Your task to perform on an android device: What is the recent news? Image 0: 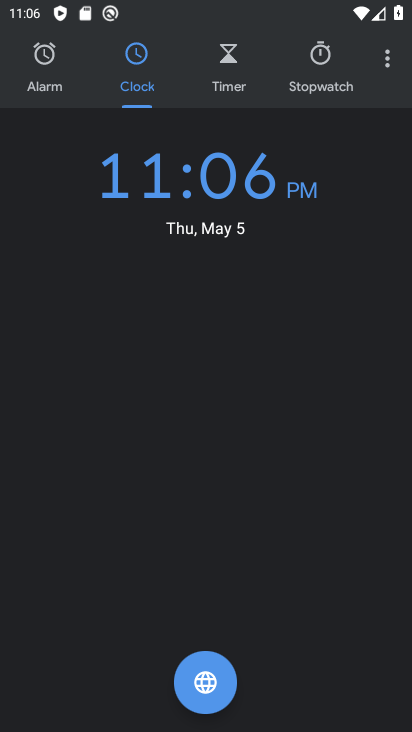
Step 0: press home button
Your task to perform on an android device: What is the recent news? Image 1: 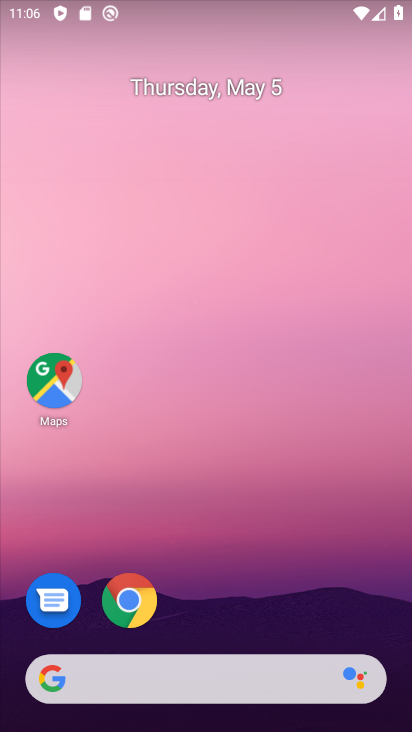
Step 1: drag from (406, 656) to (336, 108)
Your task to perform on an android device: What is the recent news? Image 2: 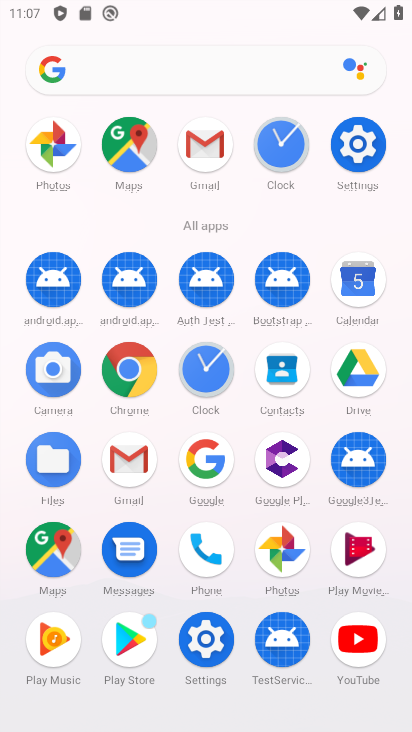
Step 2: click (132, 367)
Your task to perform on an android device: What is the recent news? Image 3: 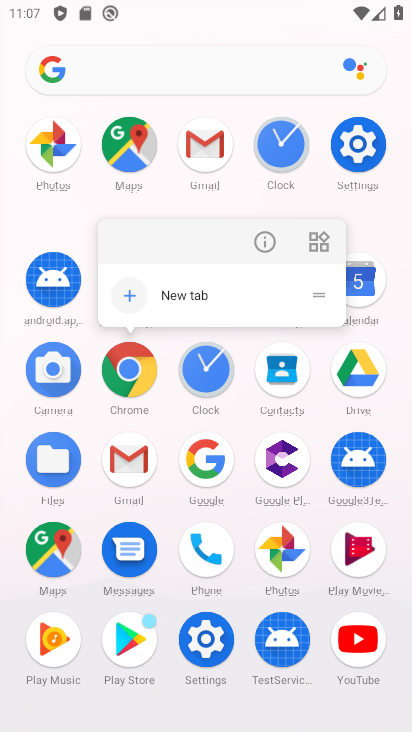
Step 3: click (143, 376)
Your task to perform on an android device: What is the recent news? Image 4: 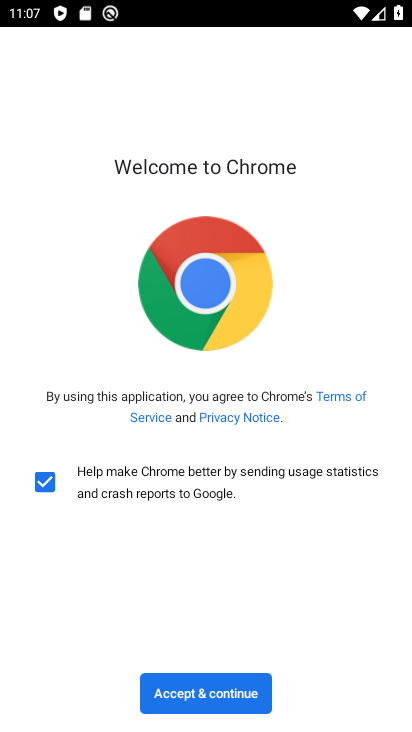
Step 4: click (185, 684)
Your task to perform on an android device: What is the recent news? Image 5: 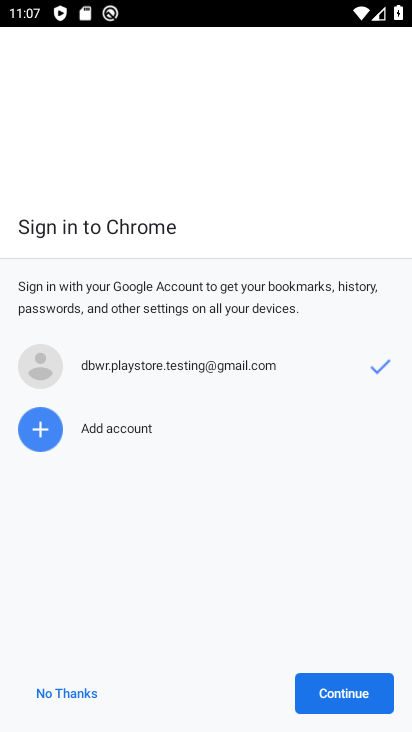
Step 5: click (336, 700)
Your task to perform on an android device: What is the recent news? Image 6: 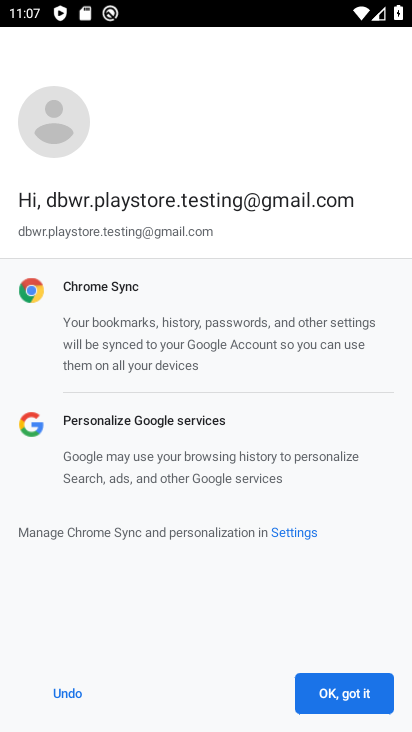
Step 6: click (336, 700)
Your task to perform on an android device: What is the recent news? Image 7: 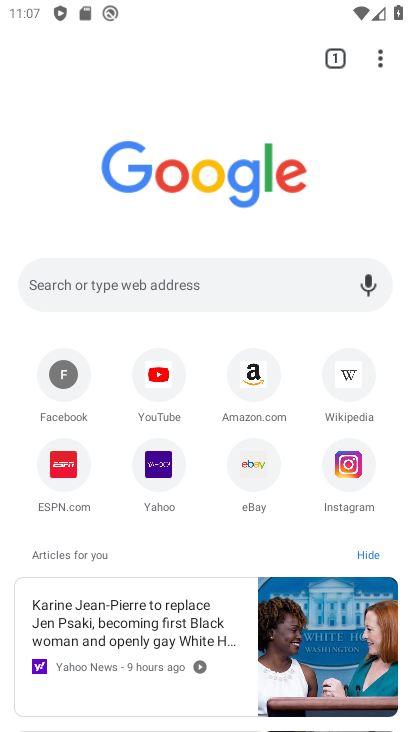
Step 7: click (159, 633)
Your task to perform on an android device: What is the recent news? Image 8: 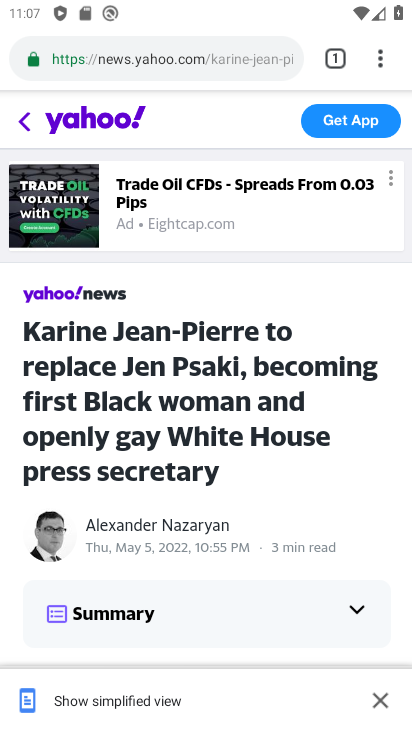
Step 8: task complete